Your task to perform on an android device: What's on my calendar tomorrow? Image 0: 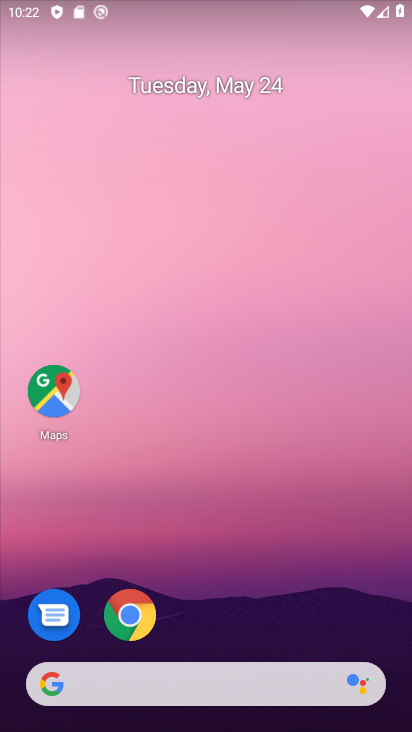
Step 0: drag from (257, 522) to (241, 68)
Your task to perform on an android device: What's on my calendar tomorrow? Image 1: 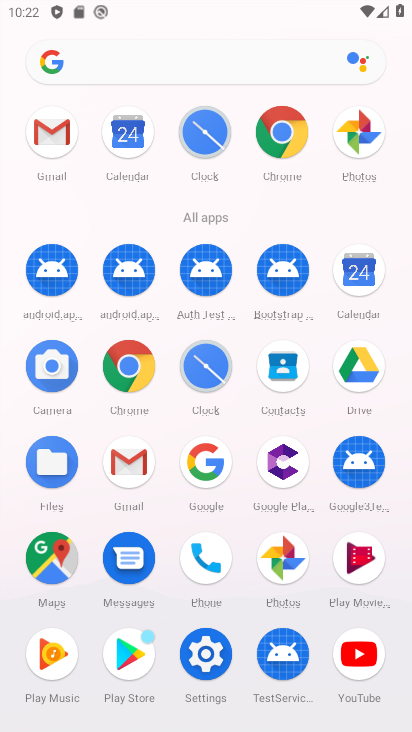
Step 1: click (126, 148)
Your task to perform on an android device: What's on my calendar tomorrow? Image 2: 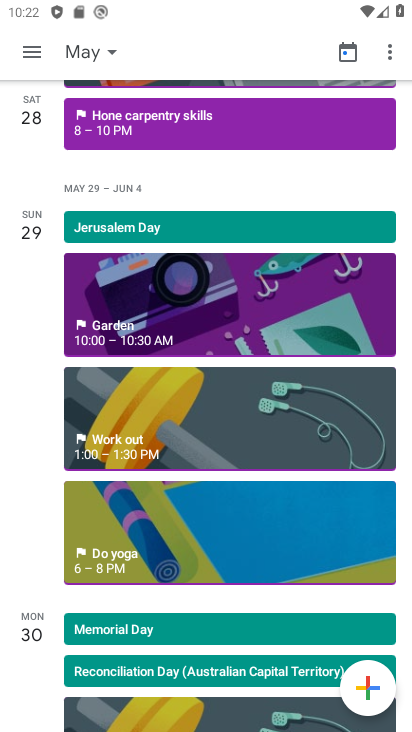
Step 2: task complete